Your task to perform on an android device: empty trash in google photos Image 0: 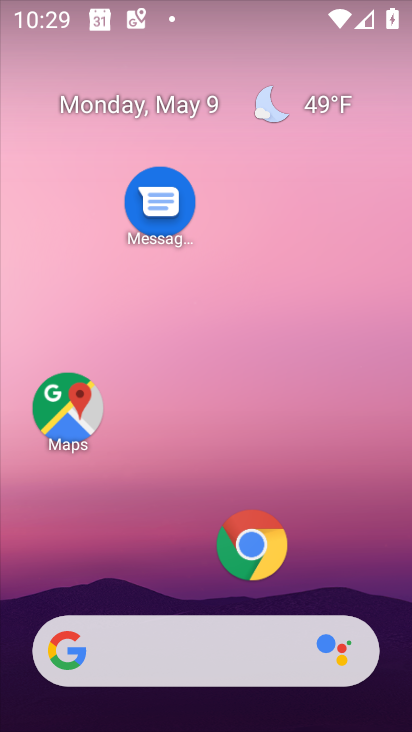
Step 0: drag from (371, 566) to (344, 69)
Your task to perform on an android device: empty trash in google photos Image 1: 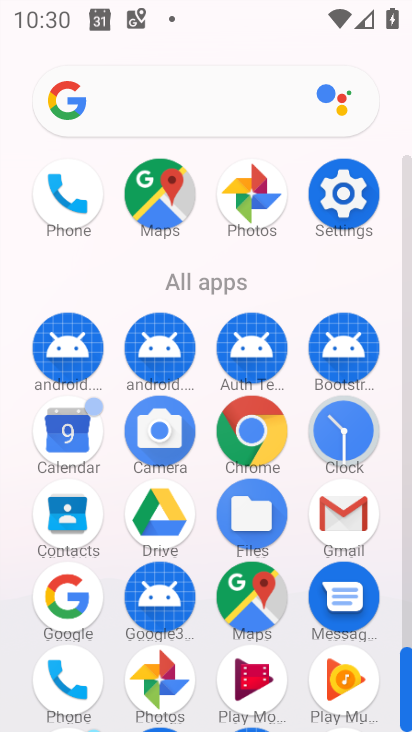
Step 1: click (264, 178)
Your task to perform on an android device: empty trash in google photos Image 2: 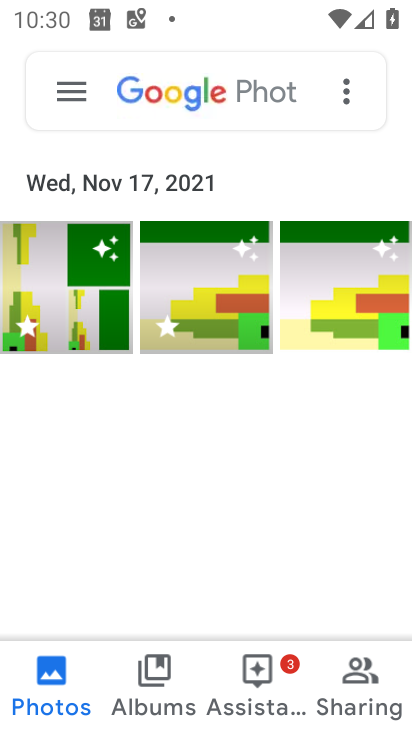
Step 2: click (81, 84)
Your task to perform on an android device: empty trash in google photos Image 3: 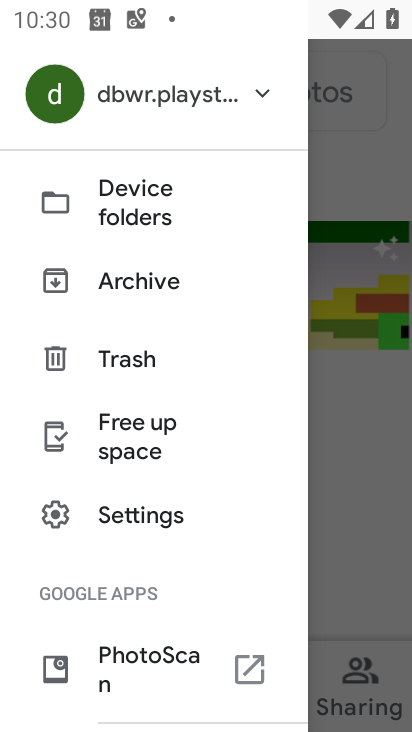
Step 3: click (133, 347)
Your task to perform on an android device: empty trash in google photos Image 4: 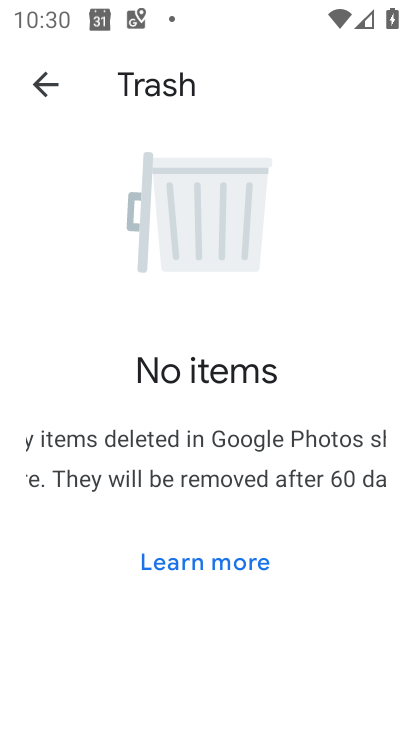
Step 4: task complete